Your task to perform on an android device: Open ESPN.com Image 0: 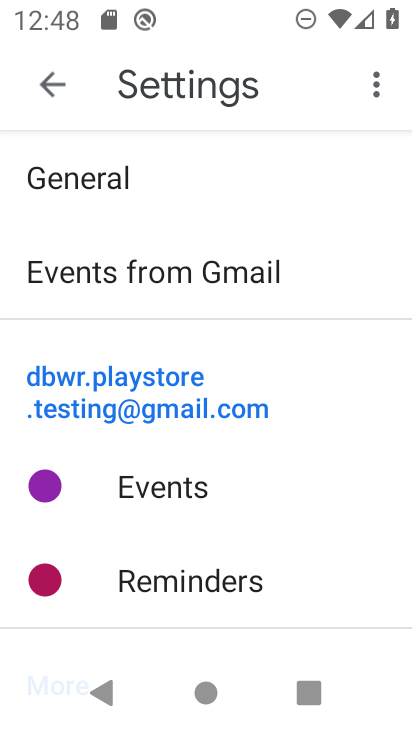
Step 0: press home button
Your task to perform on an android device: Open ESPN.com Image 1: 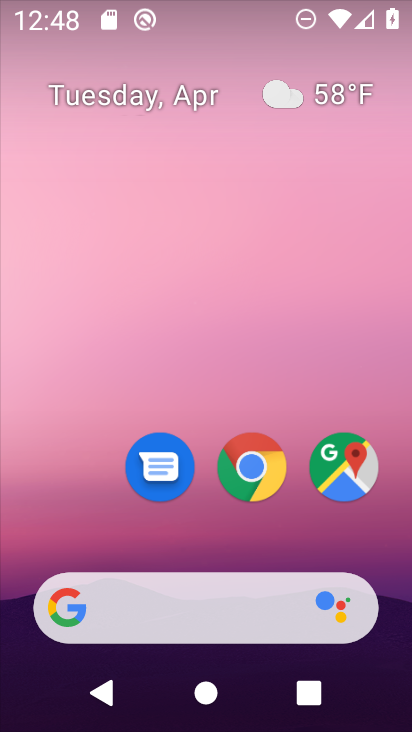
Step 1: click (252, 465)
Your task to perform on an android device: Open ESPN.com Image 2: 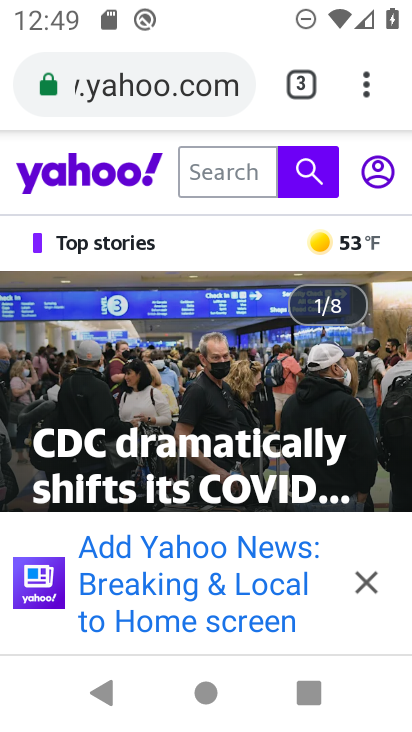
Step 2: click (163, 83)
Your task to perform on an android device: Open ESPN.com Image 3: 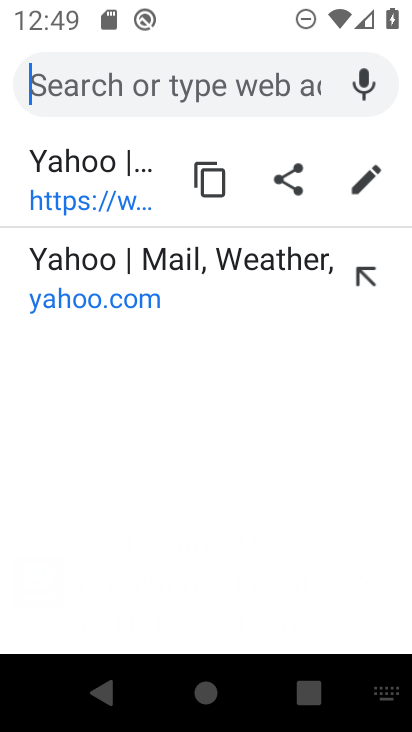
Step 3: type "espn.com"
Your task to perform on an android device: Open ESPN.com Image 4: 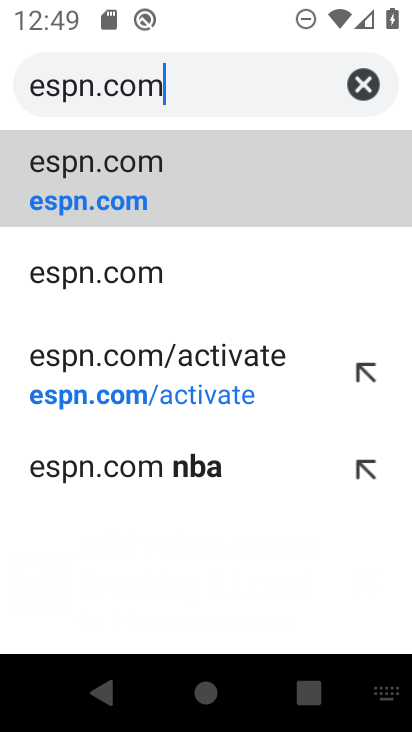
Step 4: type ""
Your task to perform on an android device: Open ESPN.com Image 5: 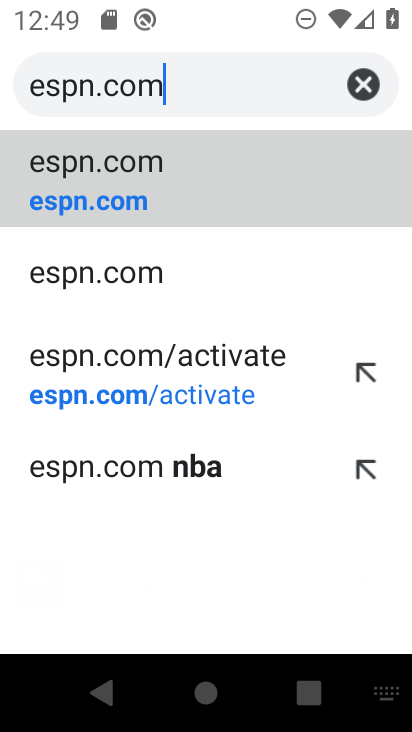
Step 5: click (212, 206)
Your task to perform on an android device: Open ESPN.com Image 6: 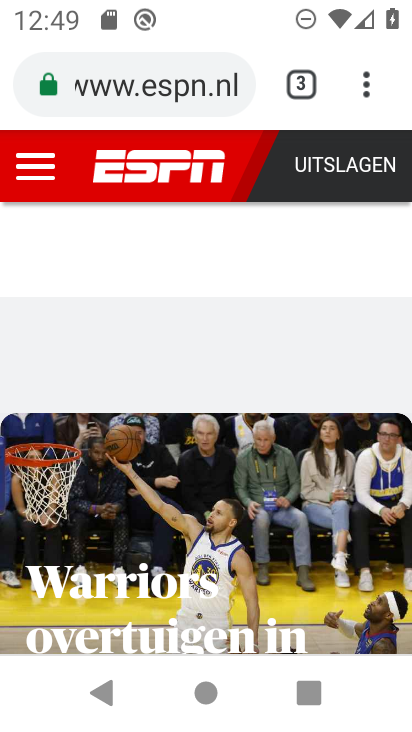
Step 6: task complete